Your task to perform on an android device: turn off notifications in google photos Image 0: 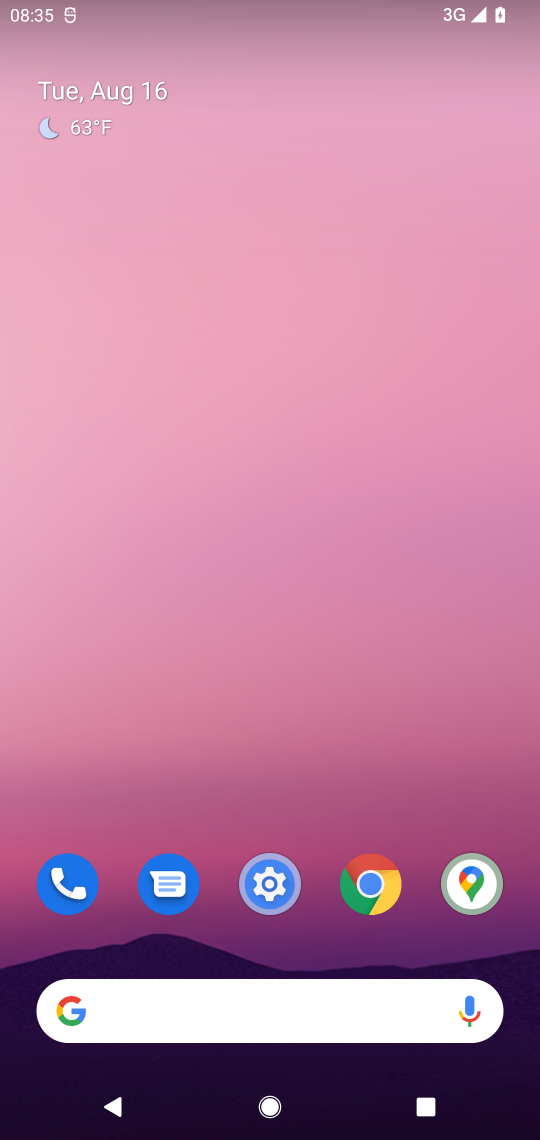
Step 0: press home button
Your task to perform on an android device: turn off notifications in google photos Image 1: 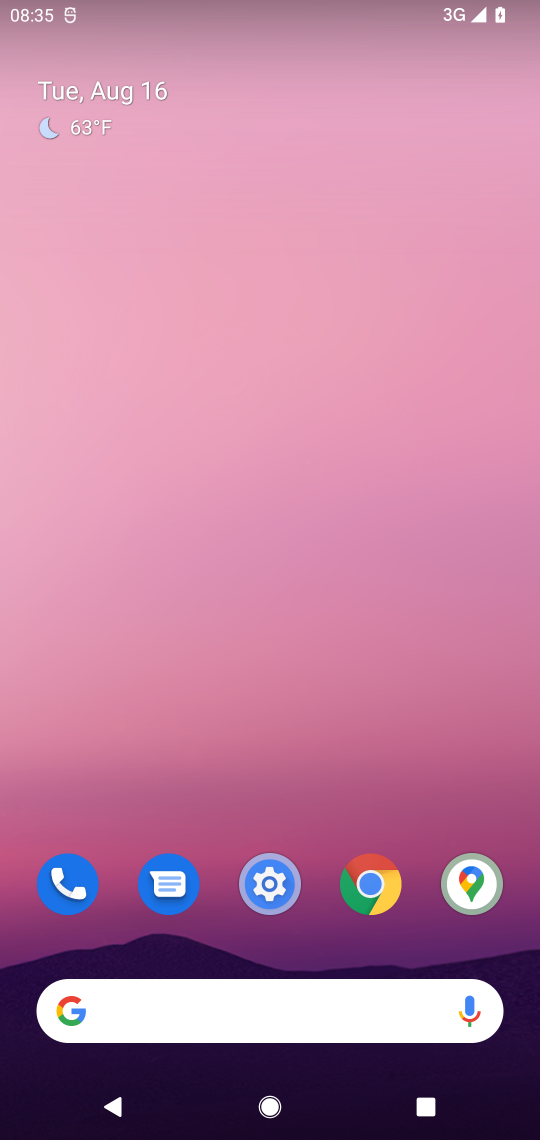
Step 1: press home button
Your task to perform on an android device: turn off notifications in google photos Image 2: 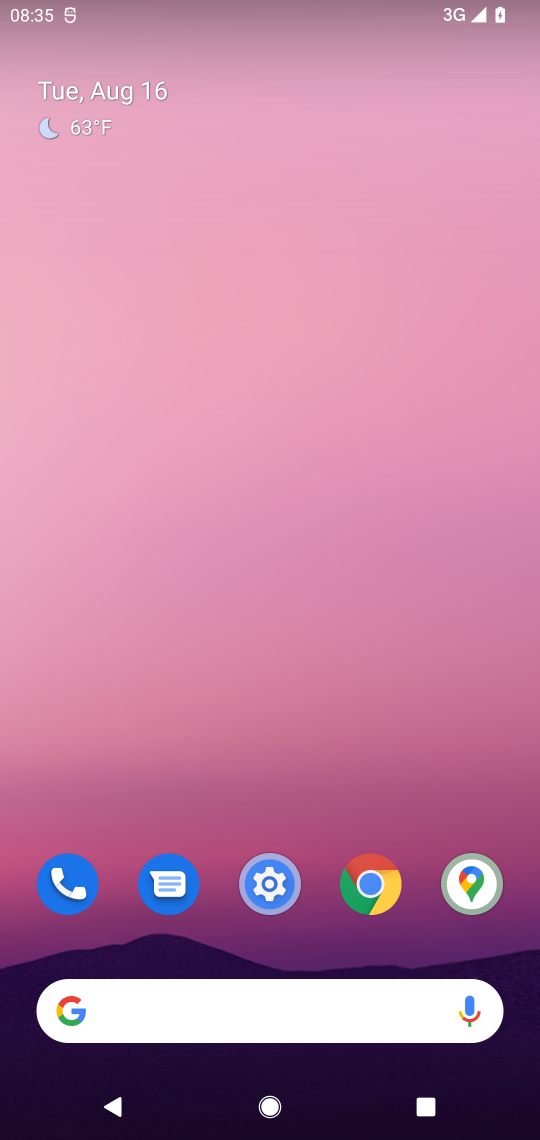
Step 2: drag from (381, 804) to (354, 91)
Your task to perform on an android device: turn off notifications in google photos Image 3: 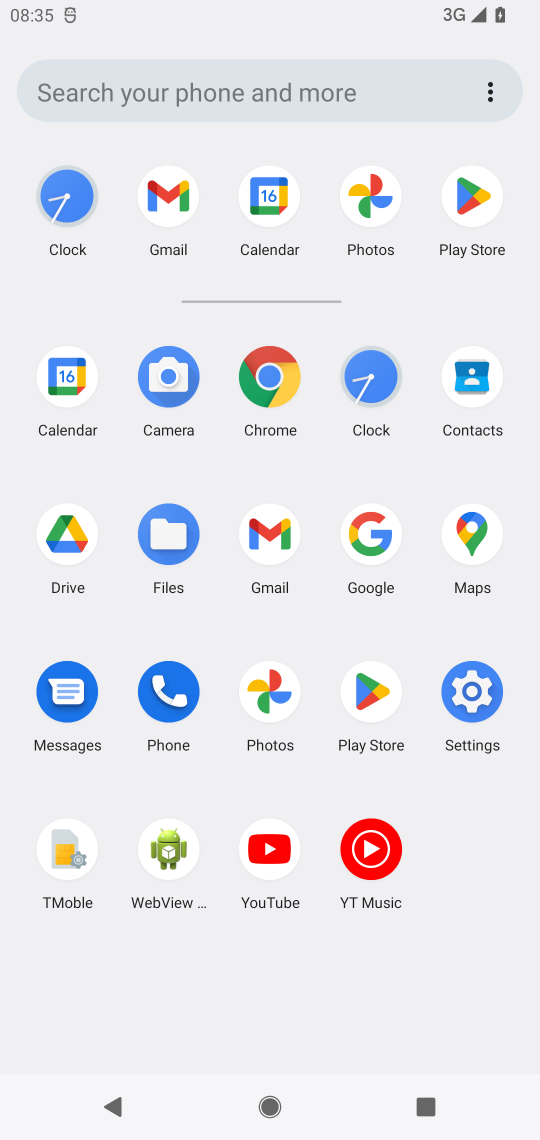
Step 3: click (263, 693)
Your task to perform on an android device: turn off notifications in google photos Image 4: 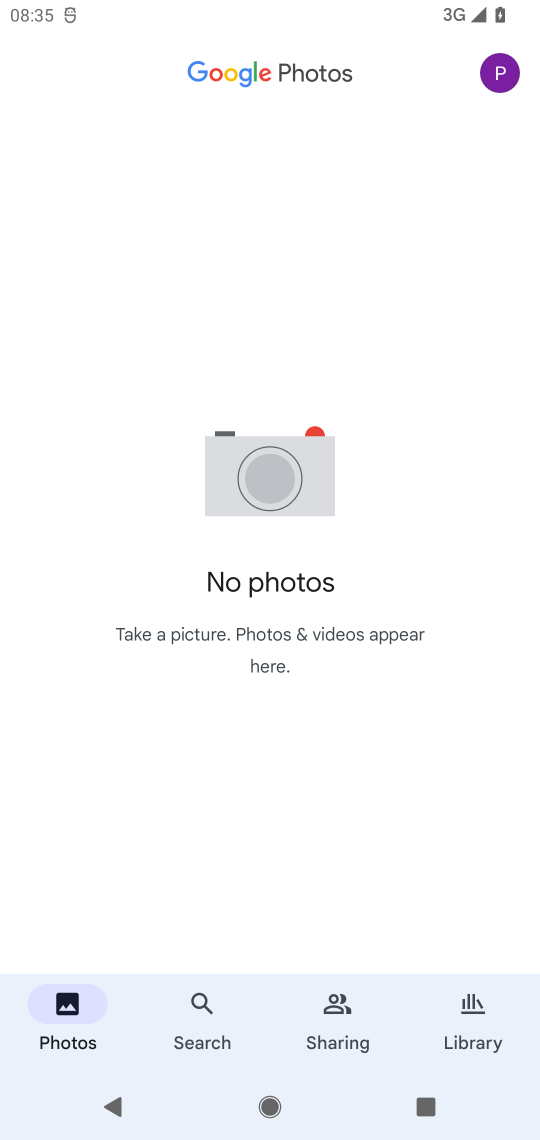
Step 4: click (507, 79)
Your task to perform on an android device: turn off notifications in google photos Image 5: 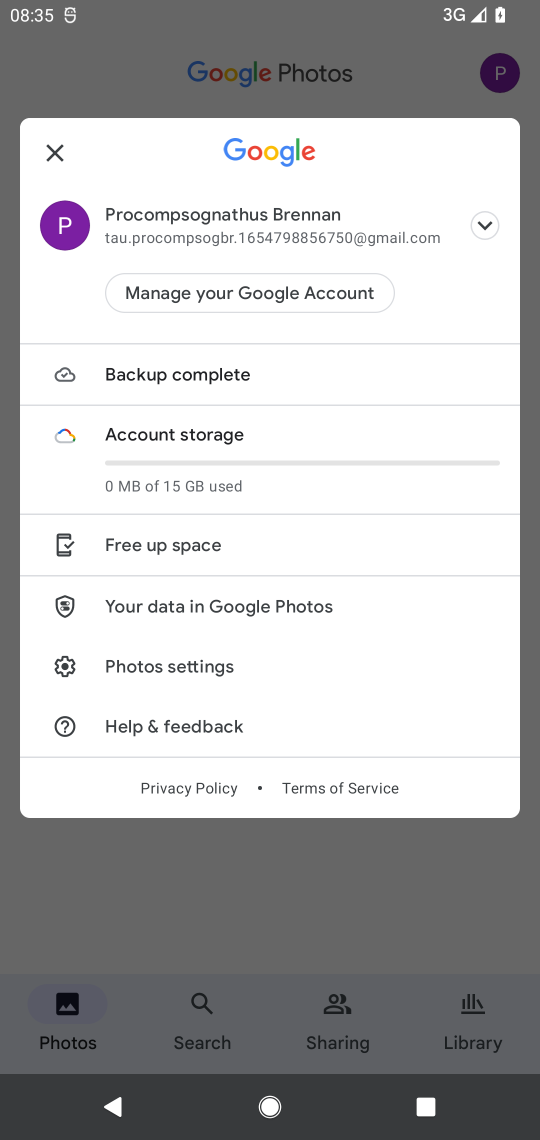
Step 5: click (221, 658)
Your task to perform on an android device: turn off notifications in google photos Image 6: 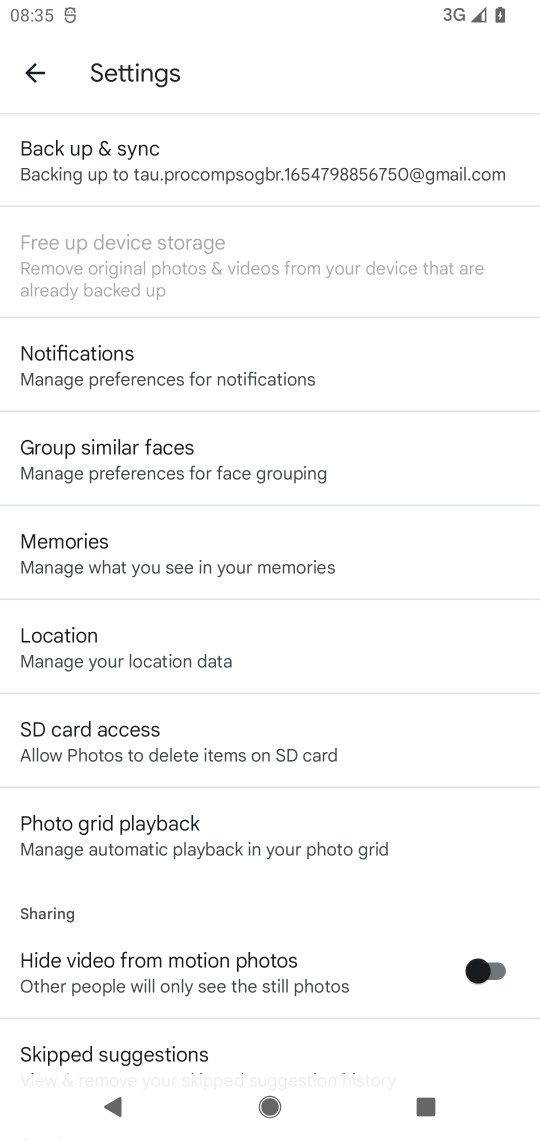
Step 6: click (101, 355)
Your task to perform on an android device: turn off notifications in google photos Image 7: 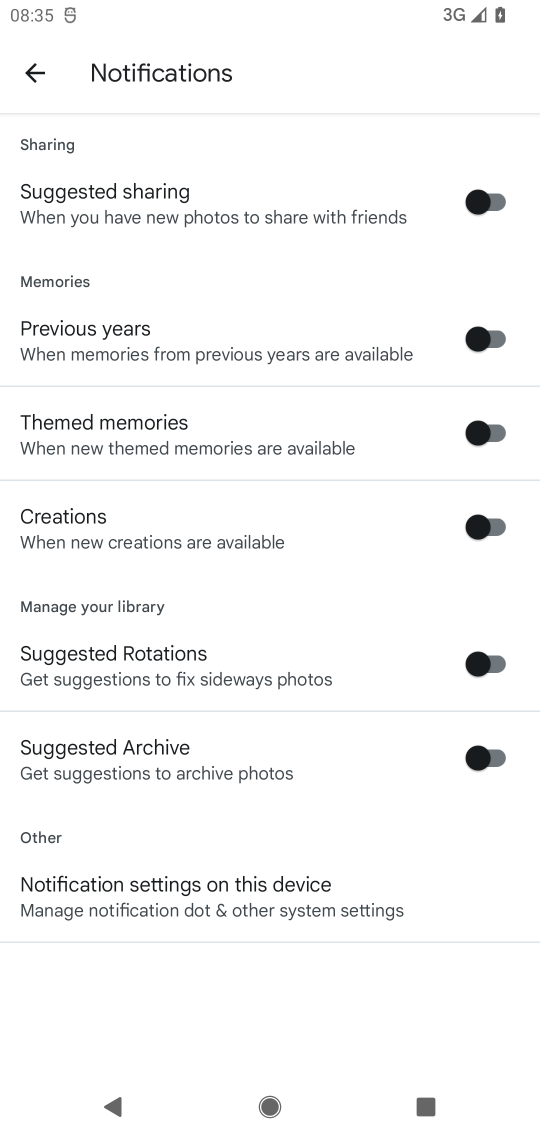
Step 7: click (109, 895)
Your task to perform on an android device: turn off notifications in google photos Image 8: 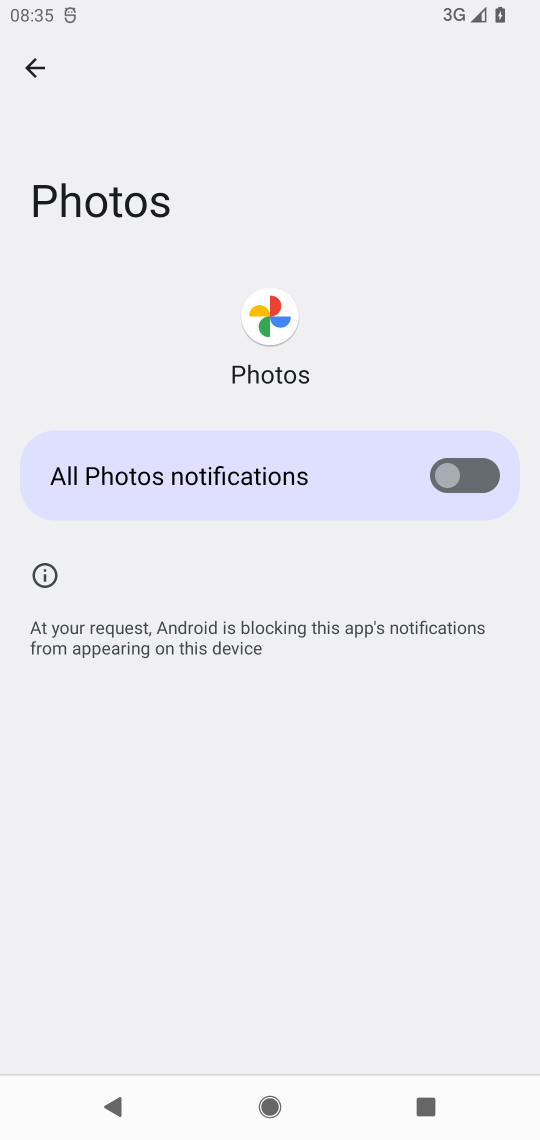
Step 8: task complete